Your task to perform on an android device: turn off picture-in-picture Image 0: 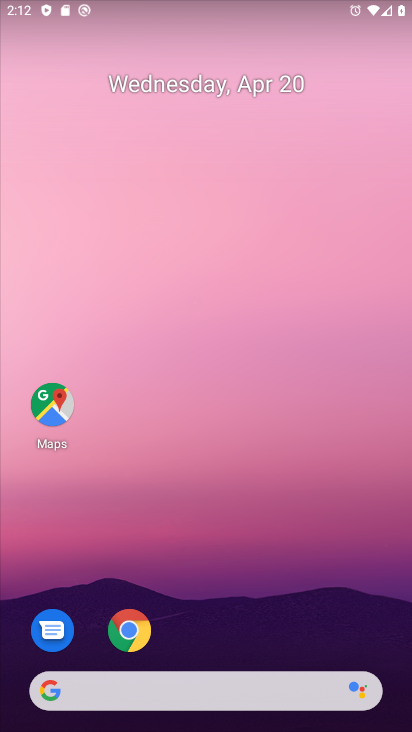
Step 0: drag from (178, 643) to (35, 88)
Your task to perform on an android device: turn off picture-in-picture Image 1: 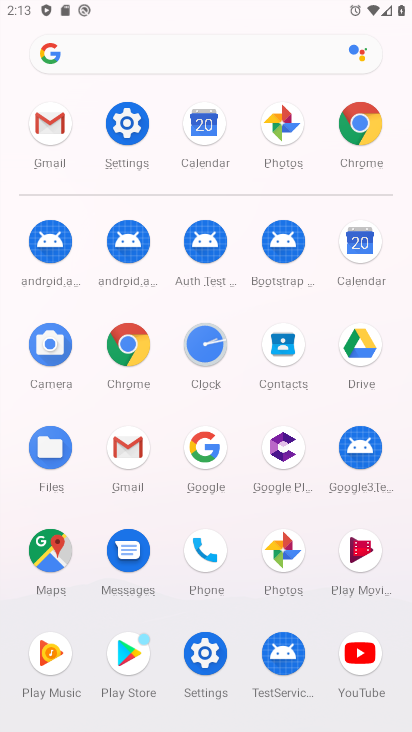
Step 1: click (114, 122)
Your task to perform on an android device: turn off picture-in-picture Image 2: 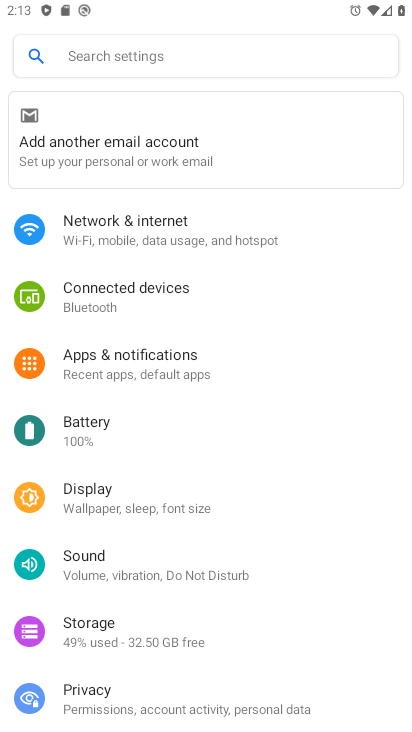
Step 2: click (126, 354)
Your task to perform on an android device: turn off picture-in-picture Image 3: 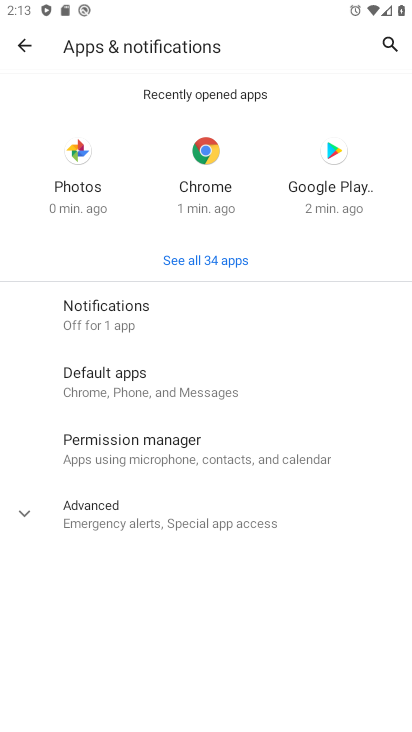
Step 3: click (89, 520)
Your task to perform on an android device: turn off picture-in-picture Image 4: 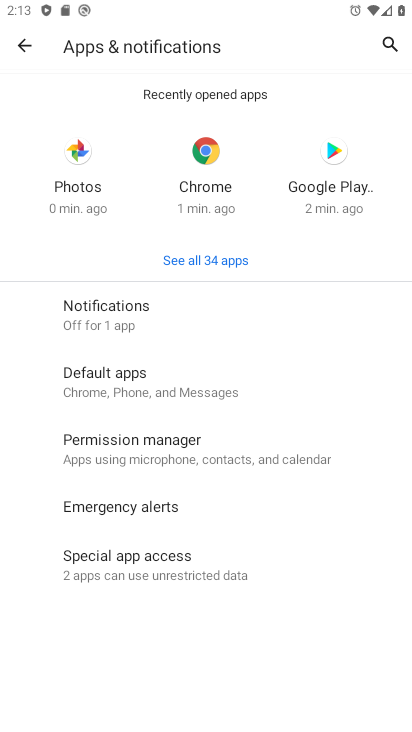
Step 4: click (64, 574)
Your task to perform on an android device: turn off picture-in-picture Image 5: 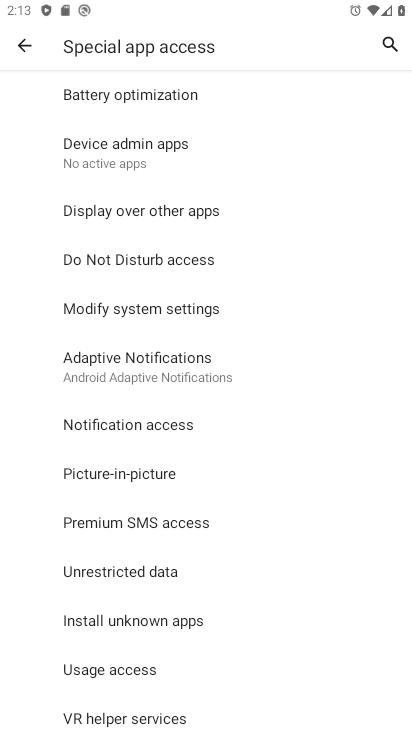
Step 5: click (95, 485)
Your task to perform on an android device: turn off picture-in-picture Image 6: 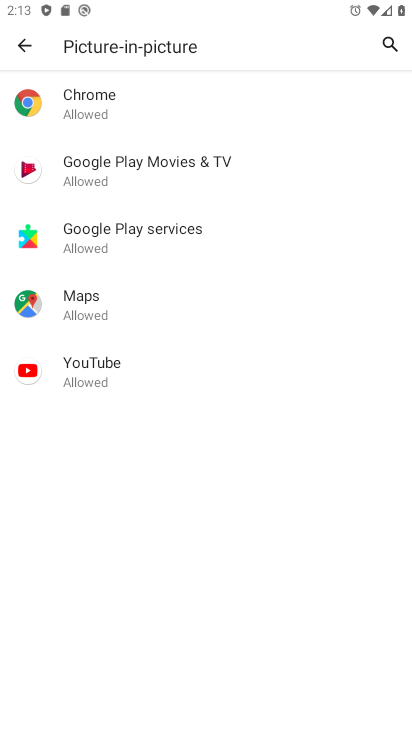
Step 6: click (216, 111)
Your task to perform on an android device: turn off picture-in-picture Image 7: 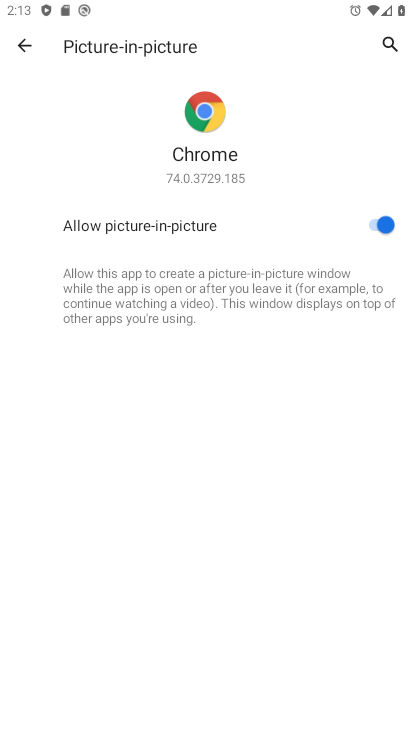
Step 7: click (386, 224)
Your task to perform on an android device: turn off picture-in-picture Image 8: 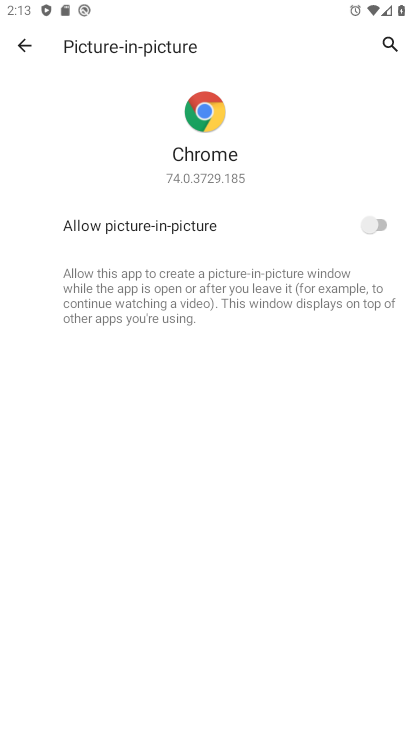
Step 8: task complete